Your task to perform on an android device: Open Google Chrome and open the bookmarks view Image 0: 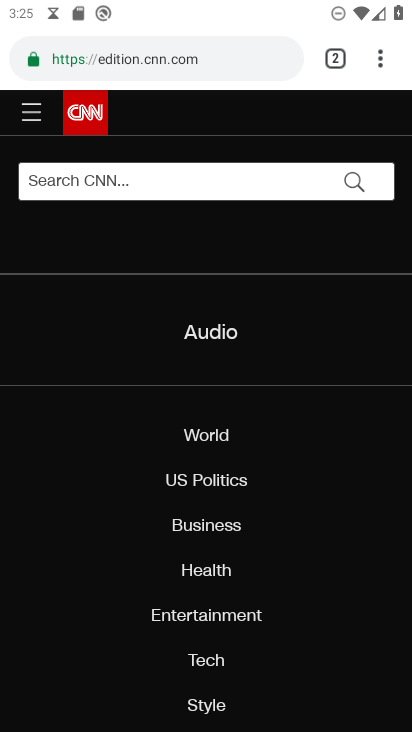
Step 0: press home button
Your task to perform on an android device: Open Google Chrome and open the bookmarks view Image 1: 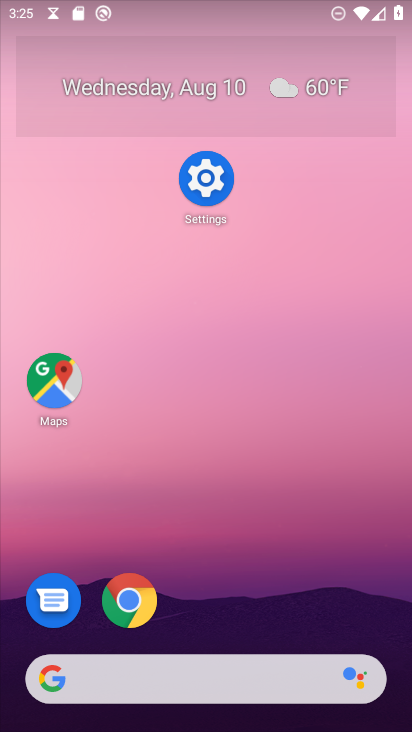
Step 1: click (122, 603)
Your task to perform on an android device: Open Google Chrome and open the bookmarks view Image 2: 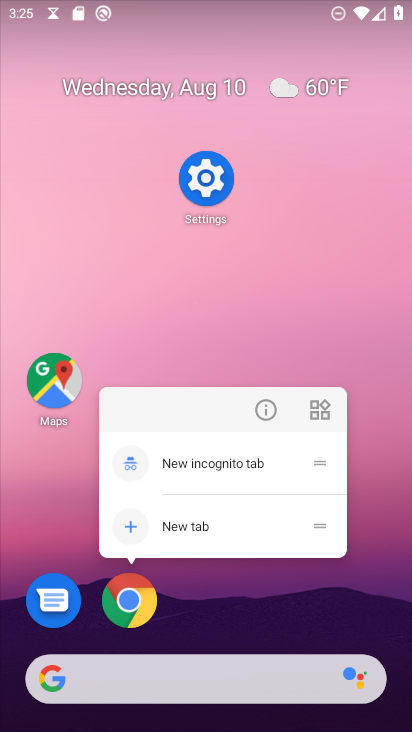
Step 2: click (134, 613)
Your task to perform on an android device: Open Google Chrome and open the bookmarks view Image 3: 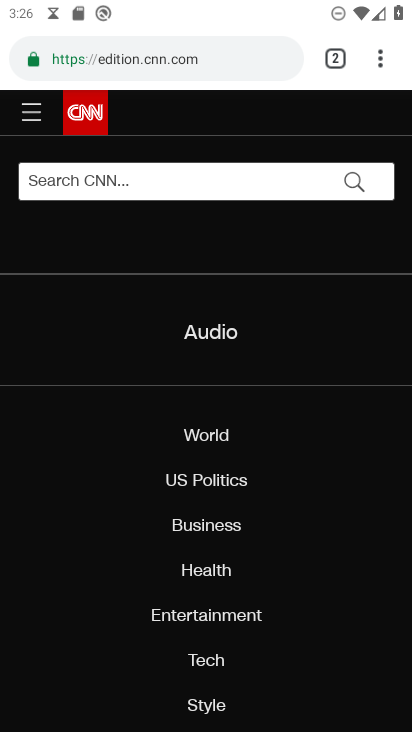
Step 3: task complete